Your task to perform on an android device: Open calendar and show me the second week of next month Image 0: 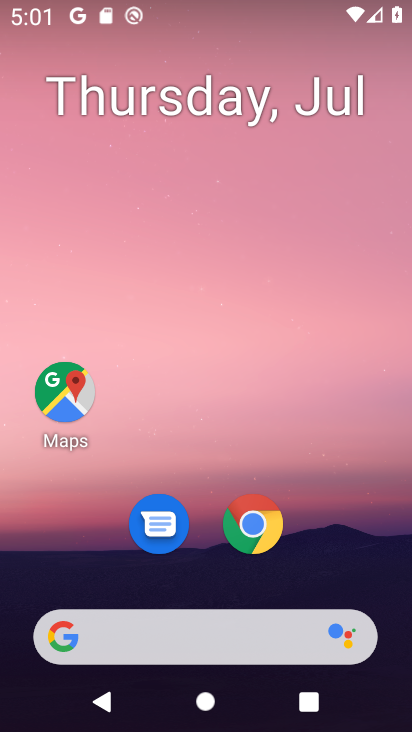
Step 0: drag from (198, 631) to (0, 348)
Your task to perform on an android device: Open calendar and show me the second week of next month Image 1: 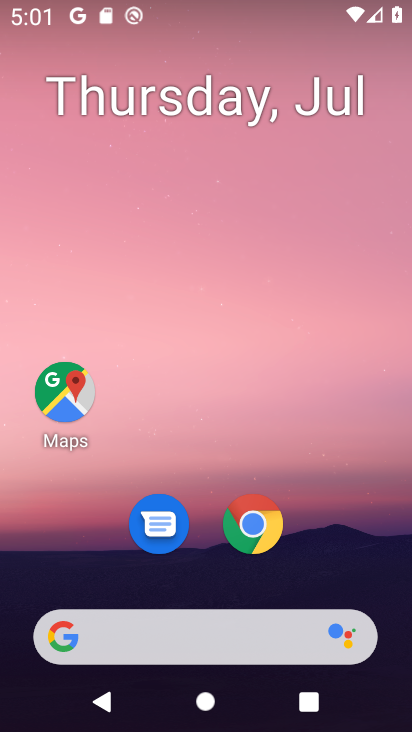
Step 1: drag from (186, 627) to (122, 41)
Your task to perform on an android device: Open calendar and show me the second week of next month Image 2: 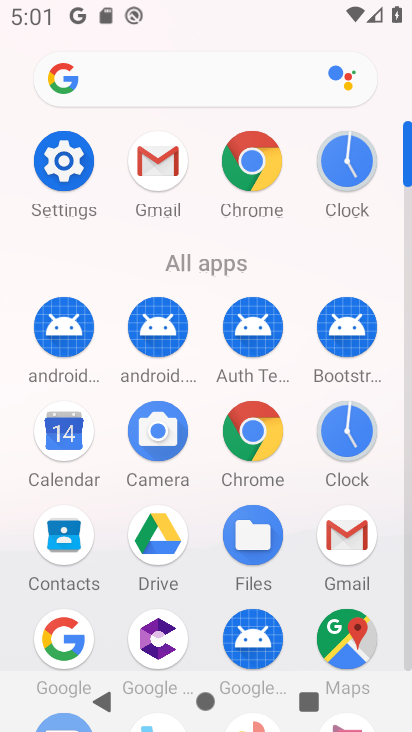
Step 2: click (73, 429)
Your task to perform on an android device: Open calendar and show me the second week of next month Image 3: 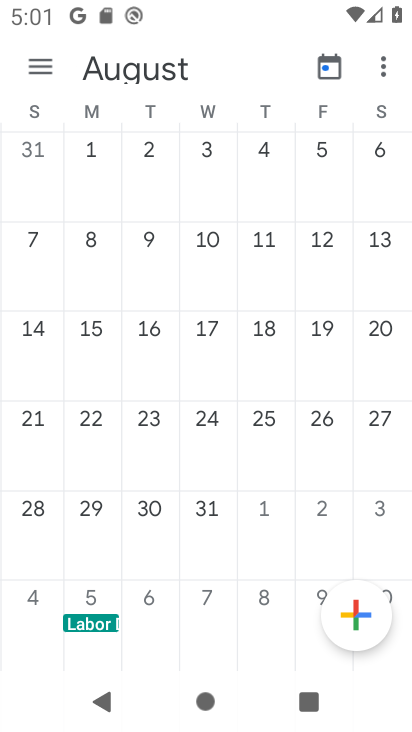
Step 3: task complete